Your task to perform on an android device: open app "DuckDuckGo Privacy Browser" Image 0: 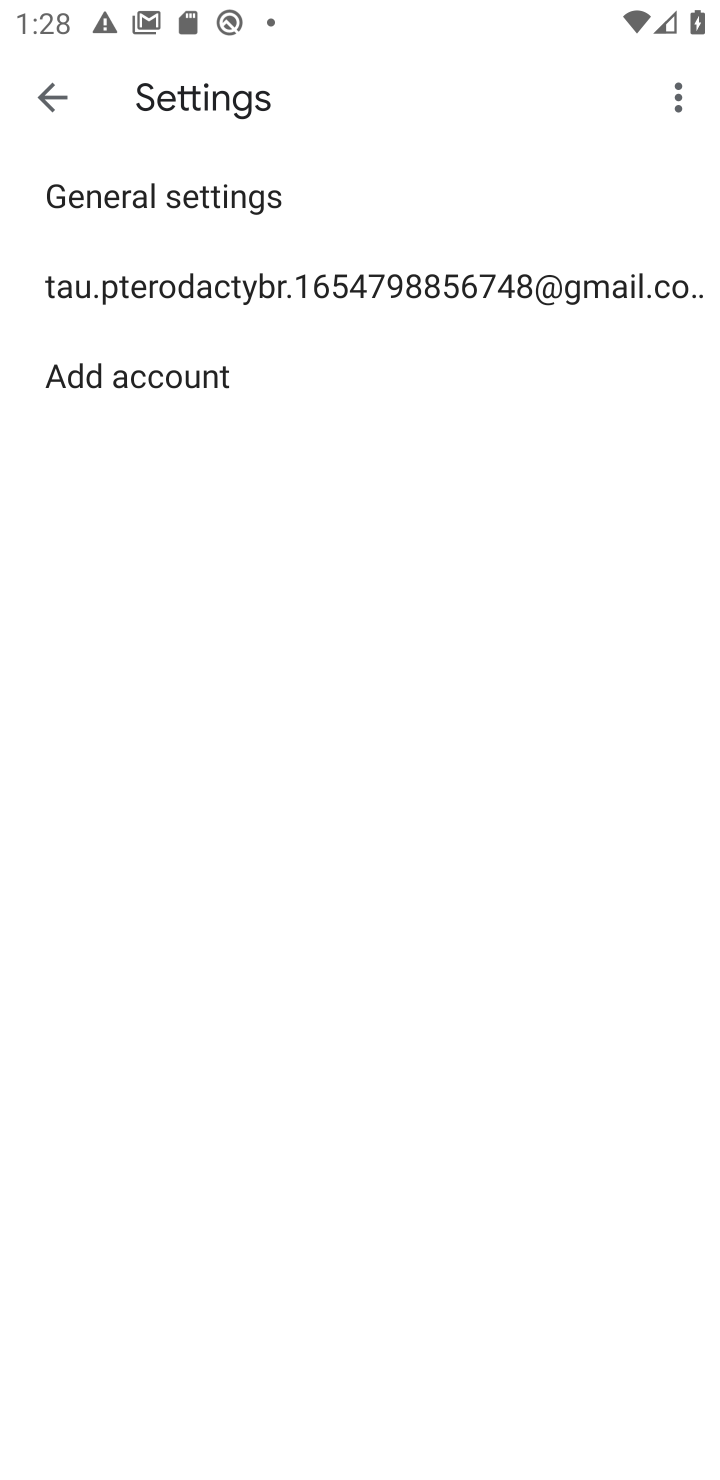
Step 0: press home button
Your task to perform on an android device: open app "DuckDuckGo Privacy Browser" Image 1: 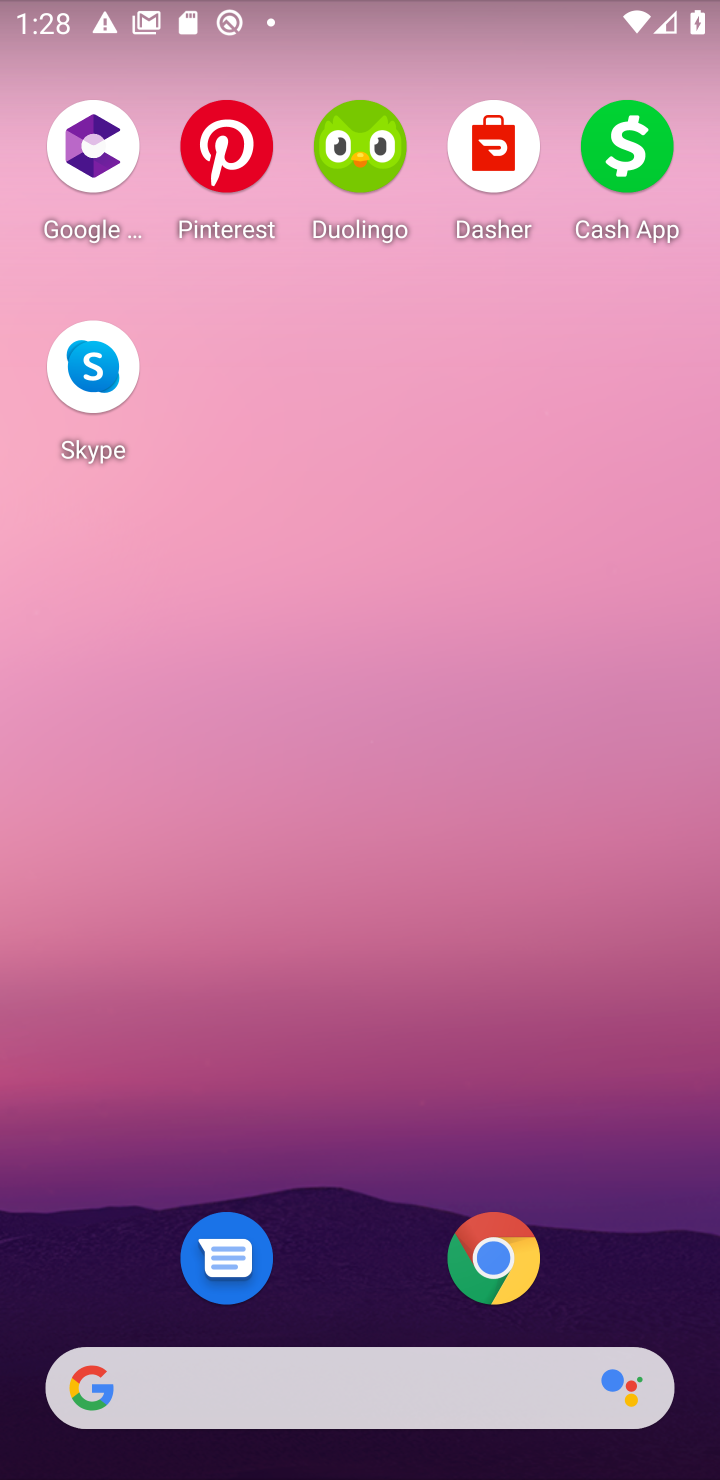
Step 1: drag from (345, 923) to (431, 2)
Your task to perform on an android device: open app "DuckDuckGo Privacy Browser" Image 2: 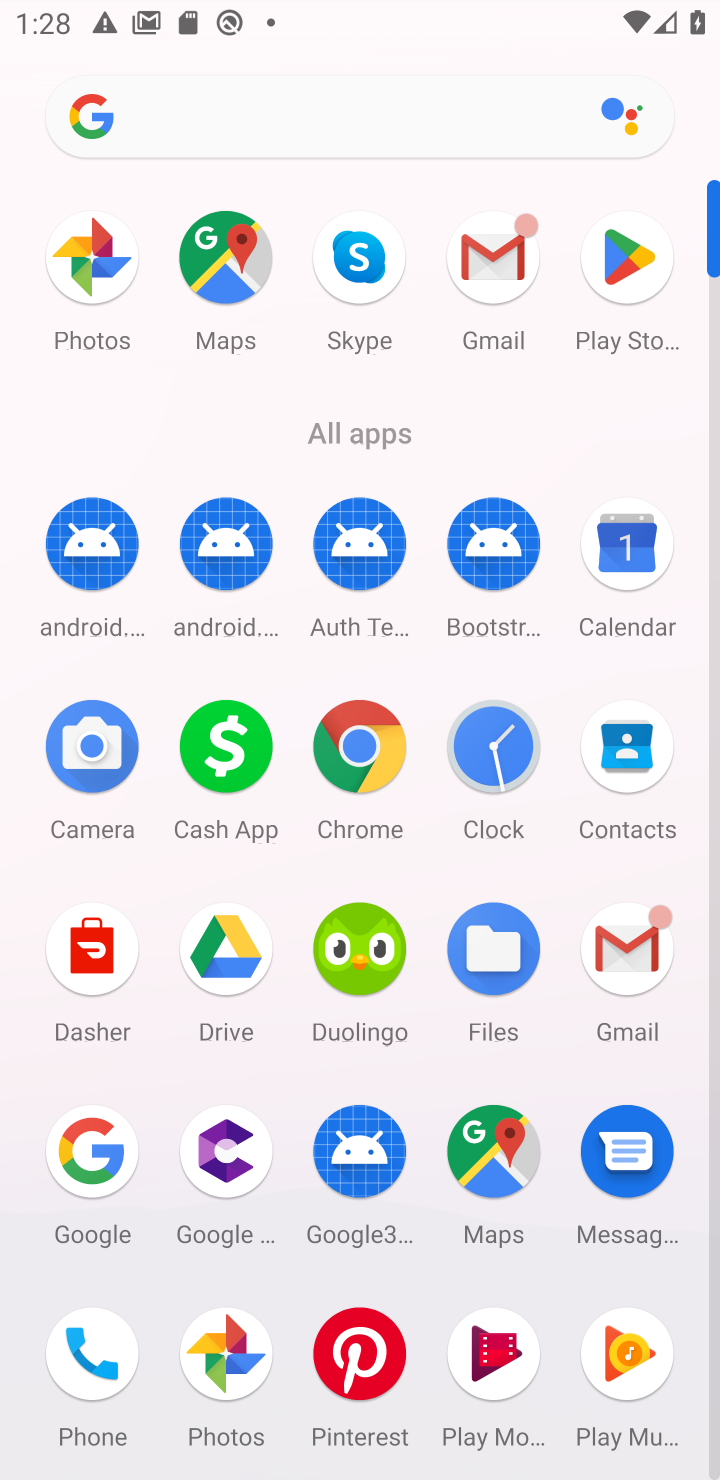
Step 2: click (616, 254)
Your task to perform on an android device: open app "DuckDuckGo Privacy Browser" Image 3: 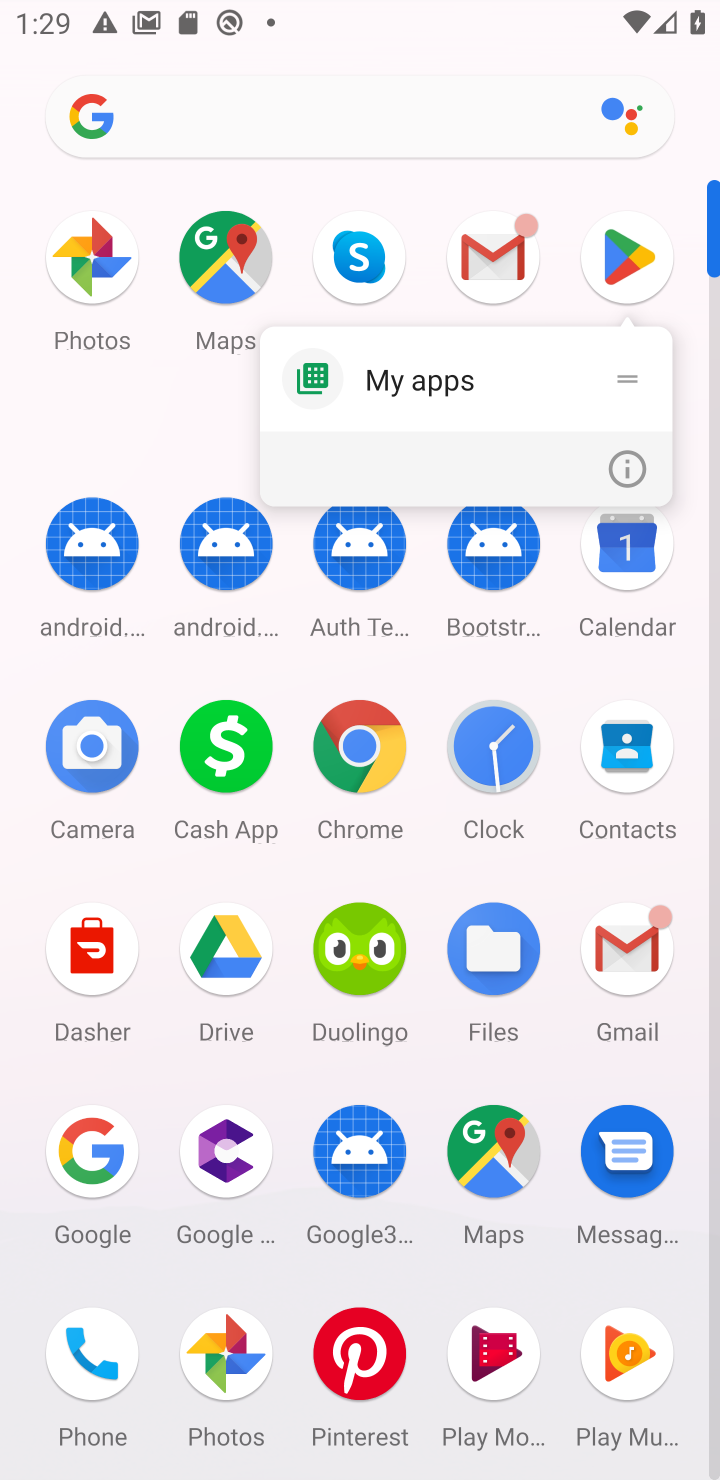
Step 3: click (626, 242)
Your task to perform on an android device: open app "DuckDuckGo Privacy Browser" Image 4: 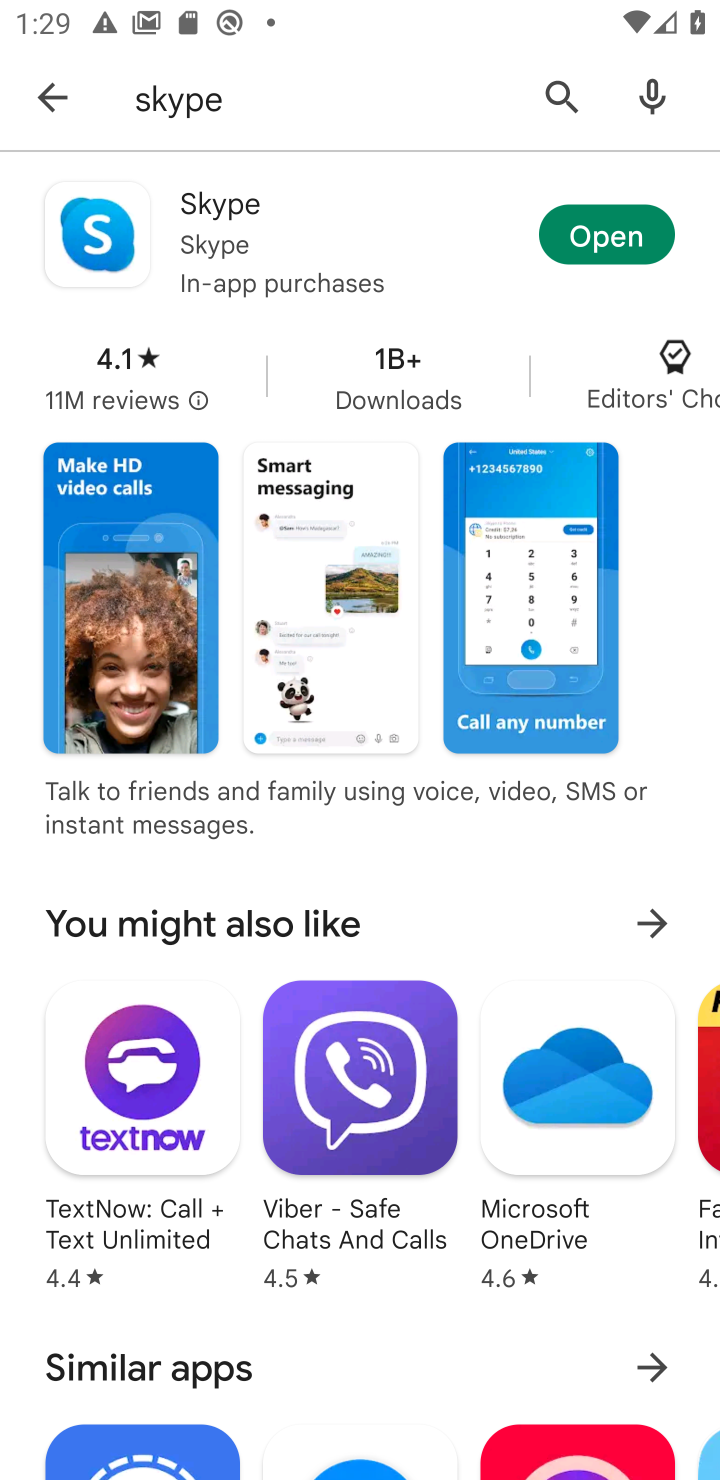
Step 4: click (548, 92)
Your task to perform on an android device: open app "DuckDuckGo Privacy Browser" Image 5: 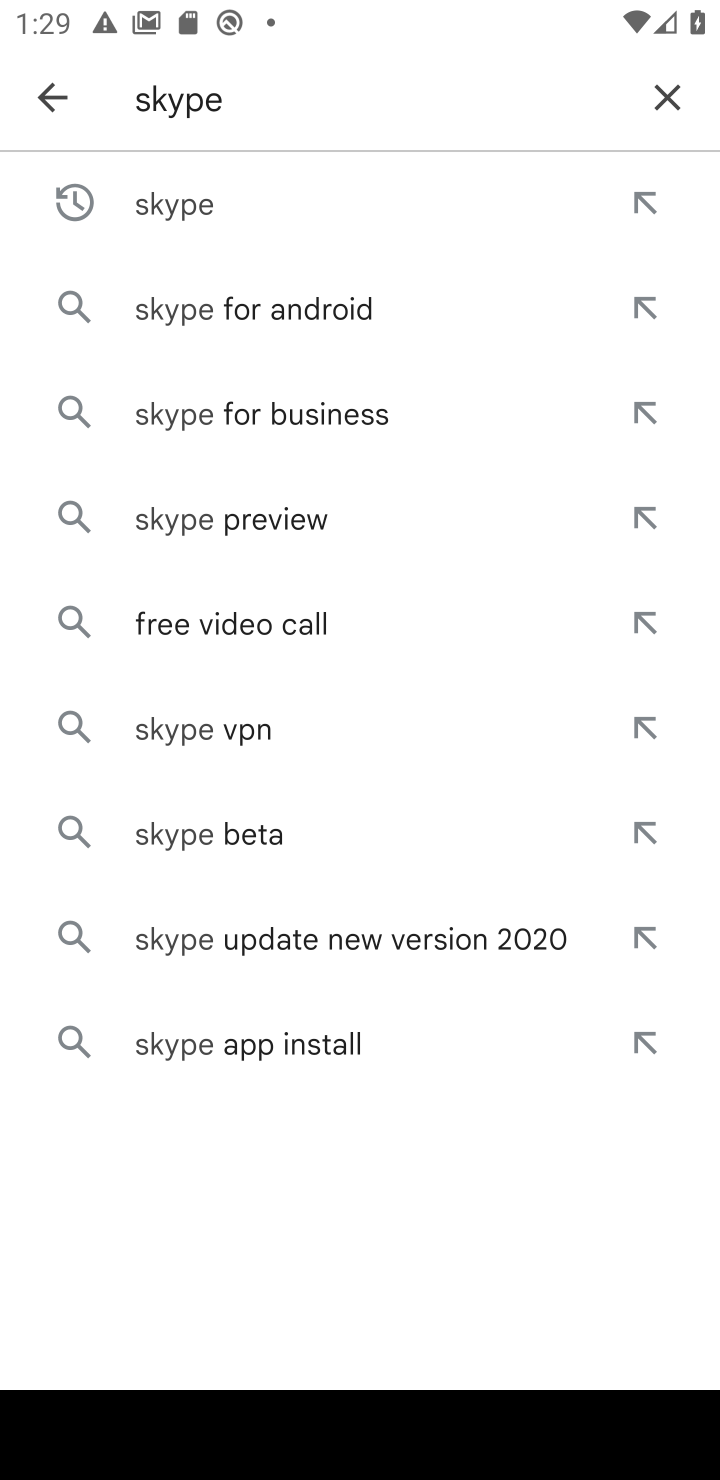
Step 5: click (647, 94)
Your task to perform on an android device: open app "DuckDuckGo Privacy Browser" Image 6: 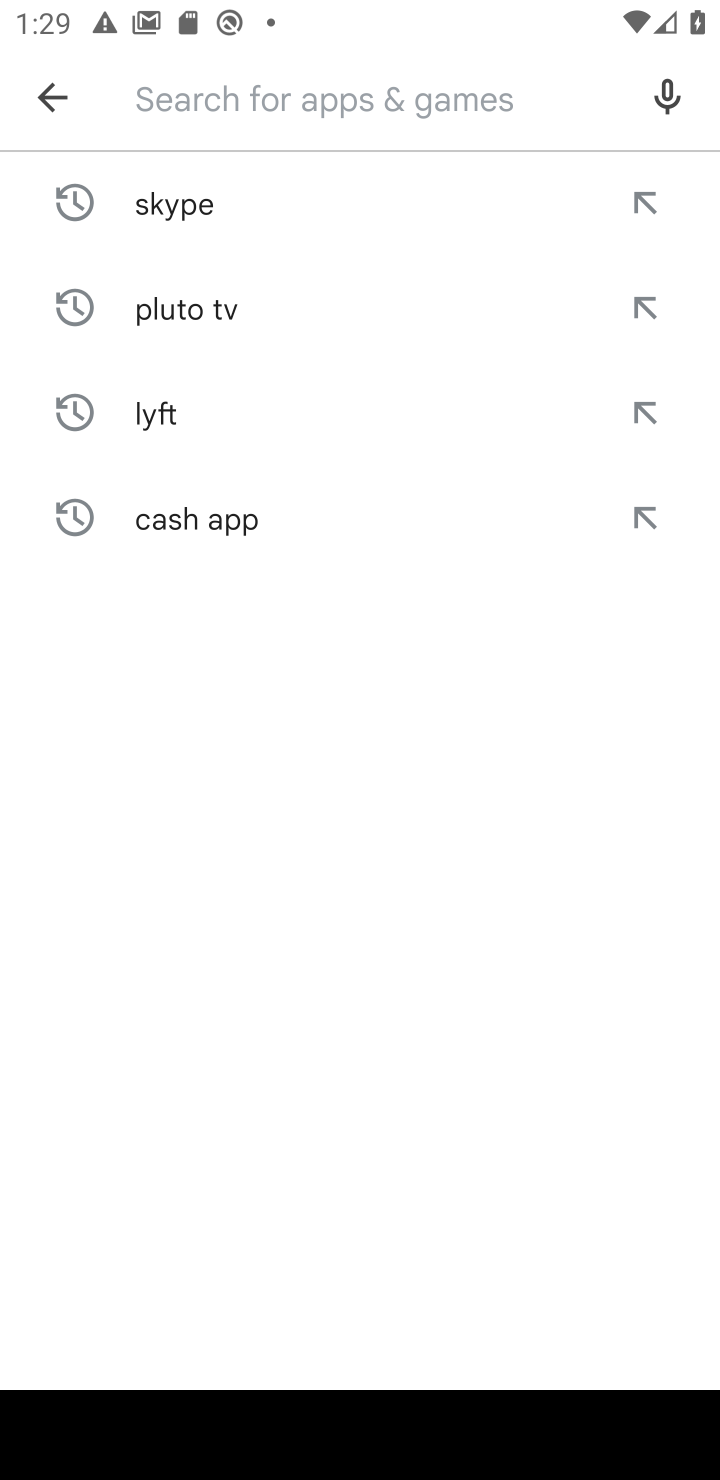
Step 6: click (323, 102)
Your task to perform on an android device: open app "DuckDuckGo Privacy Browser" Image 7: 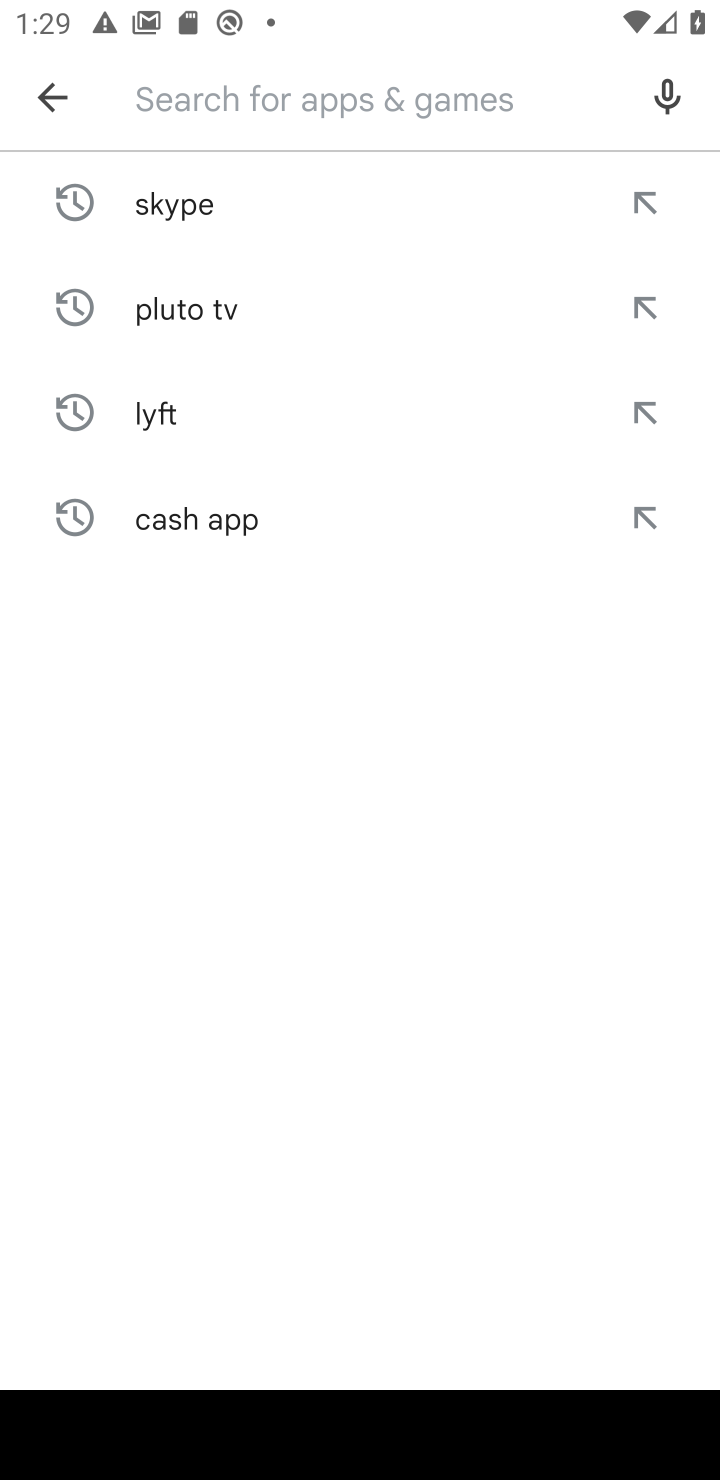
Step 7: type "duckduckgo"
Your task to perform on an android device: open app "DuckDuckGo Privacy Browser" Image 8: 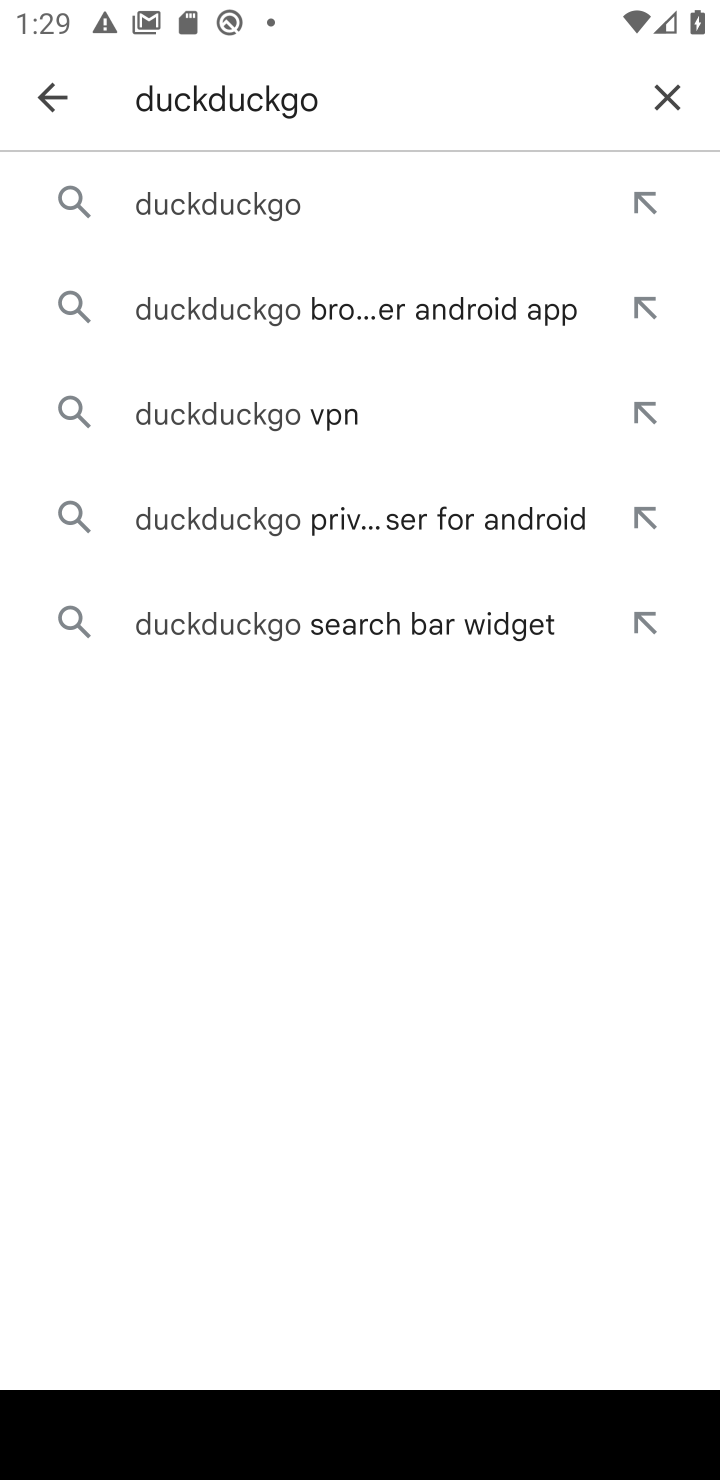
Step 8: click (147, 210)
Your task to perform on an android device: open app "DuckDuckGo Privacy Browser" Image 9: 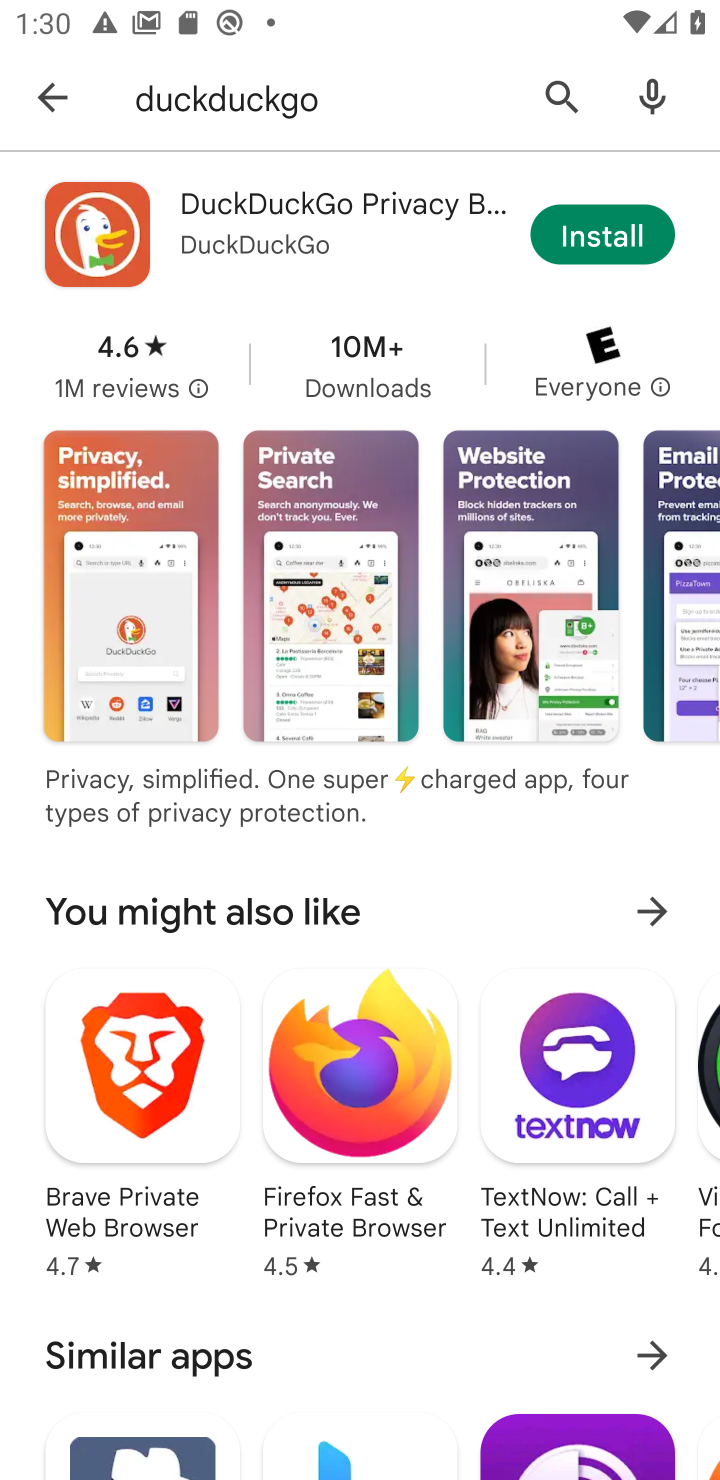
Step 9: task complete